Your task to perform on an android device: Open Google Maps and go to "Timeline" Image 0: 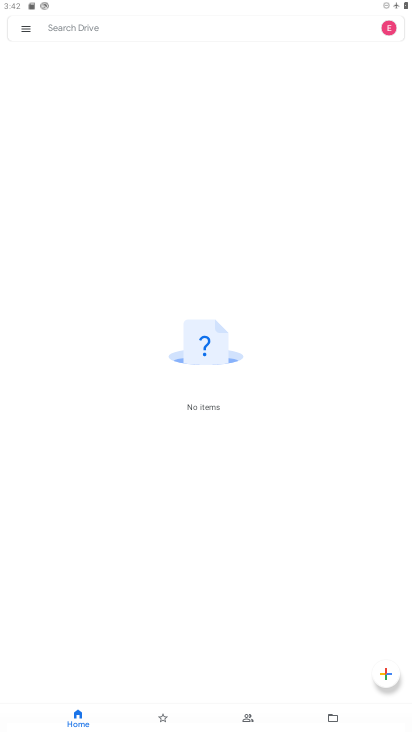
Step 0: press home button
Your task to perform on an android device: Open Google Maps and go to "Timeline" Image 1: 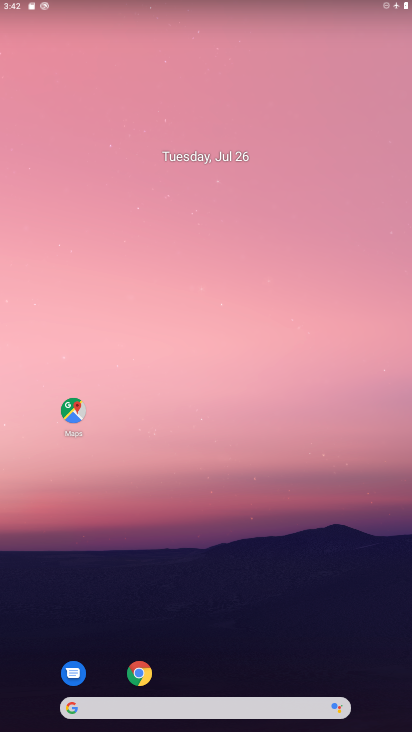
Step 1: click (74, 412)
Your task to perform on an android device: Open Google Maps and go to "Timeline" Image 2: 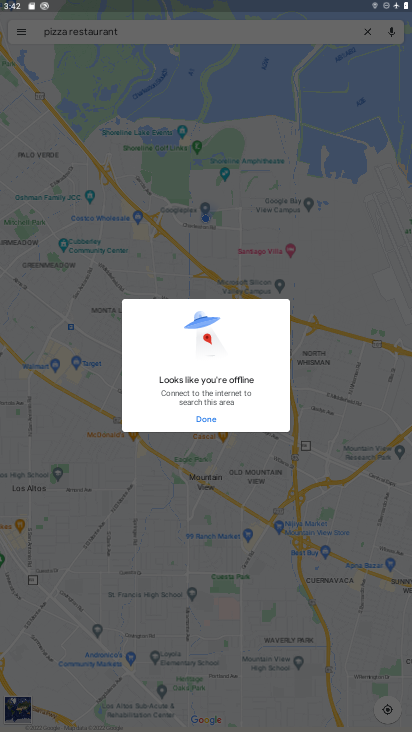
Step 2: click (200, 415)
Your task to perform on an android device: Open Google Maps and go to "Timeline" Image 3: 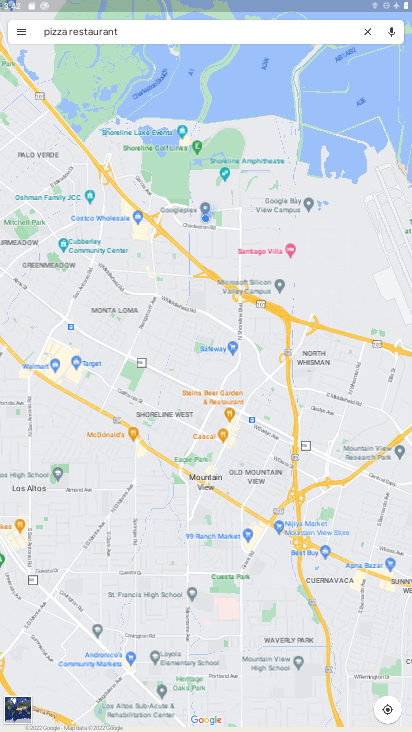
Step 3: click (19, 36)
Your task to perform on an android device: Open Google Maps and go to "Timeline" Image 4: 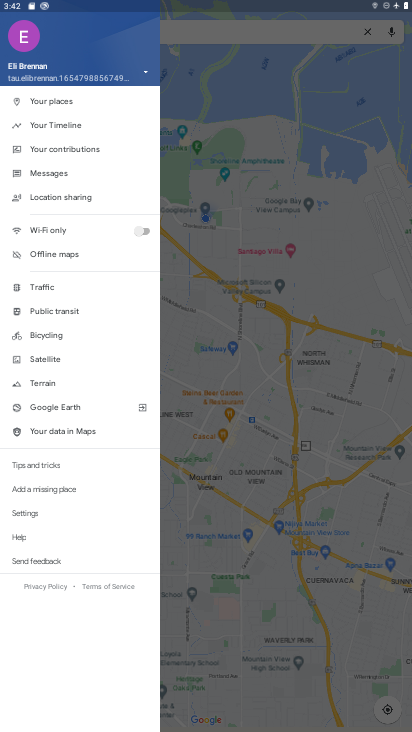
Step 4: click (46, 127)
Your task to perform on an android device: Open Google Maps and go to "Timeline" Image 5: 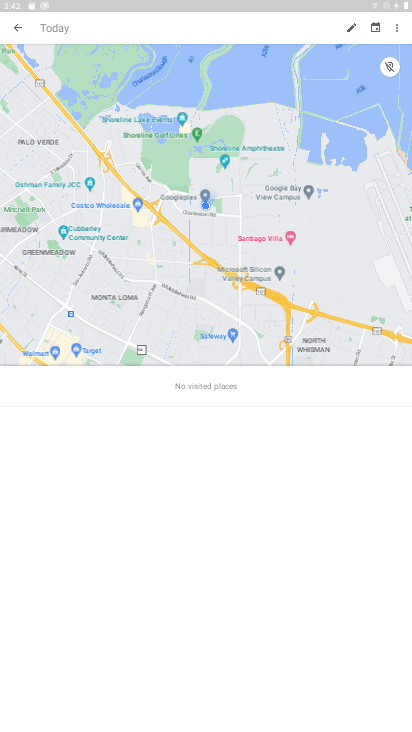
Step 5: task complete